Your task to perform on an android device: clear all cookies in the chrome app Image 0: 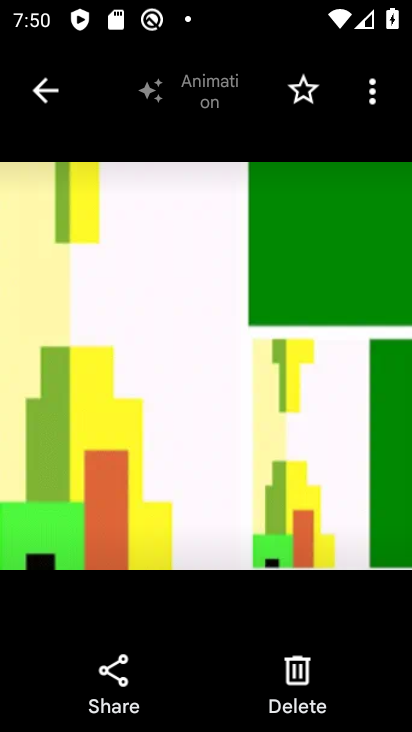
Step 0: press home button
Your task to perform on an android device: clear all cookies in the chrome app Image 1: 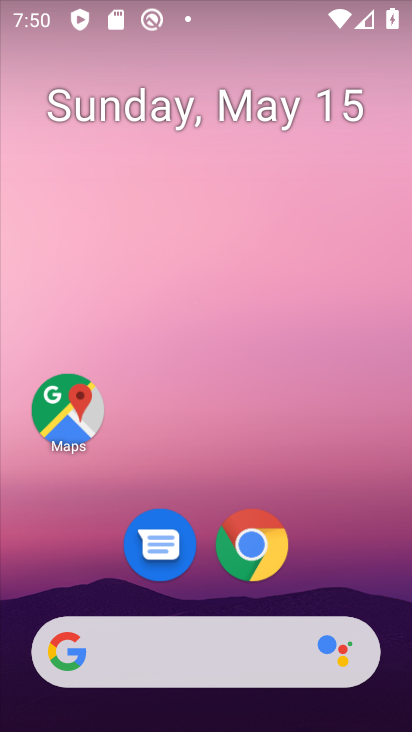
Step 1: drag from (377, 566) to (371, 66)
Your task to perform on an android device: clear all cookies in the chrome app Image 2: 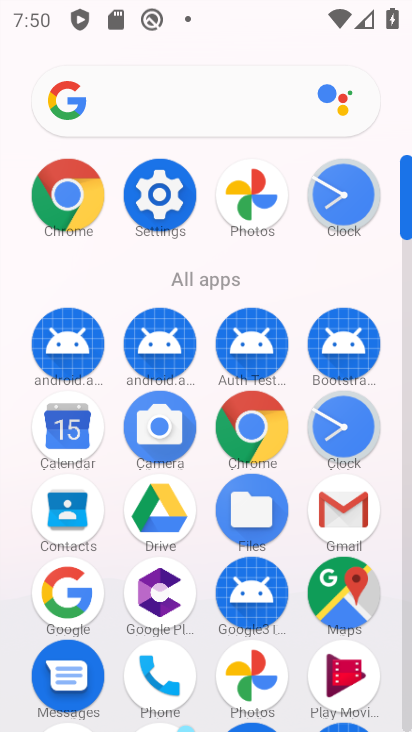
Step 2: click (261, 438)
Your task to perform on an android device: clear all cookies in the chrome app Image 3: 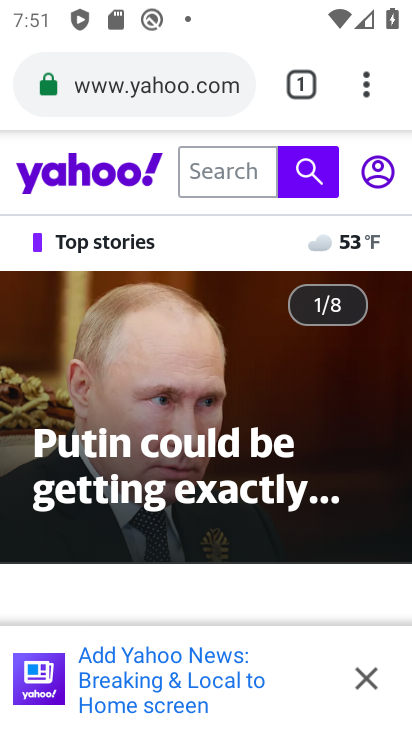
Step 3: click (368, 91)
Your task to perform on an android device: clear all cookies in the chrome app Image 4: 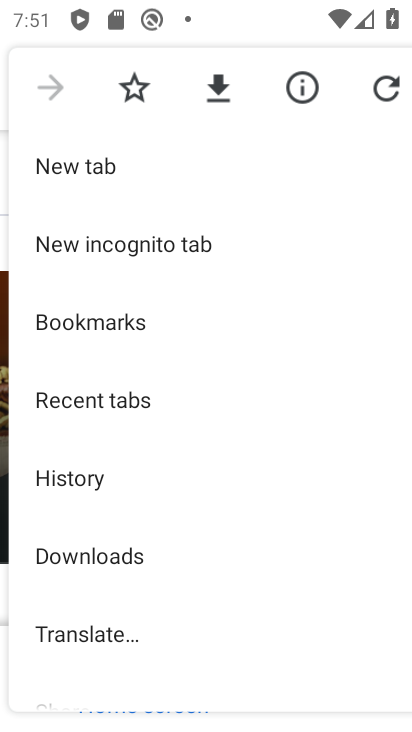
Step 4: drag from (284, 630) to (309, 377)
Your task to perform on an android device: clear all cookies in the chrome app Image 5: 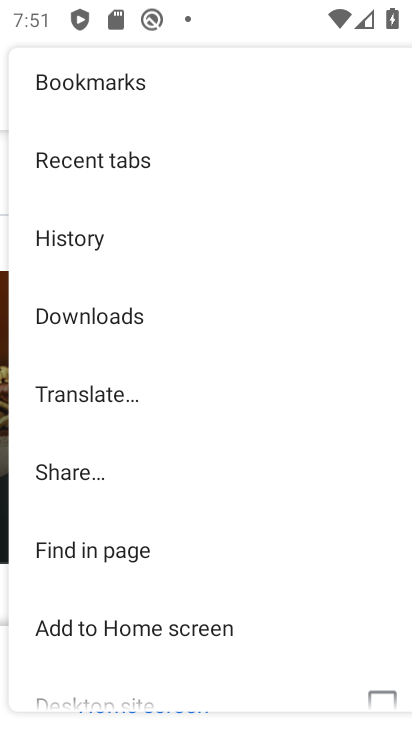
Step 5: drag from (285, 642) to (322, 297)
Your task to perform on an android device: clear all cookies in the chrome app Image 6: 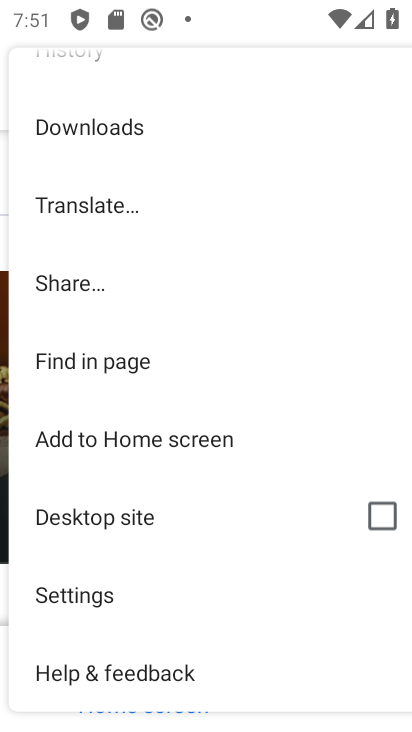
Step 6: click (110, 614)
Your task to perform on an android device: clear all cookies in the chrome app Image 7: 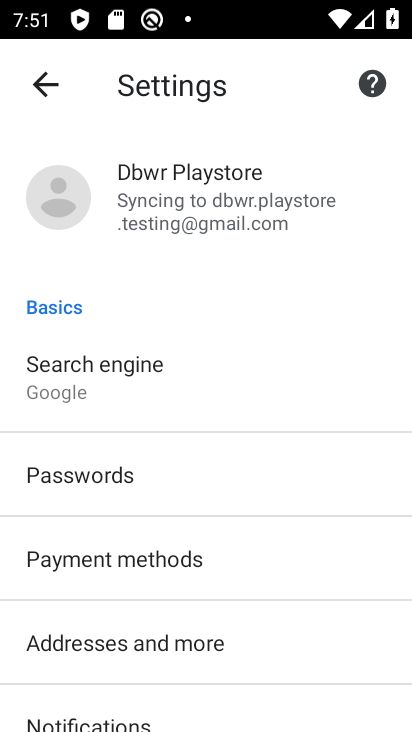
Step 7: drag from (326, 617) to (324, 415)
Your task to perform on an android device: clear all cookies in the chrome app Image 8: 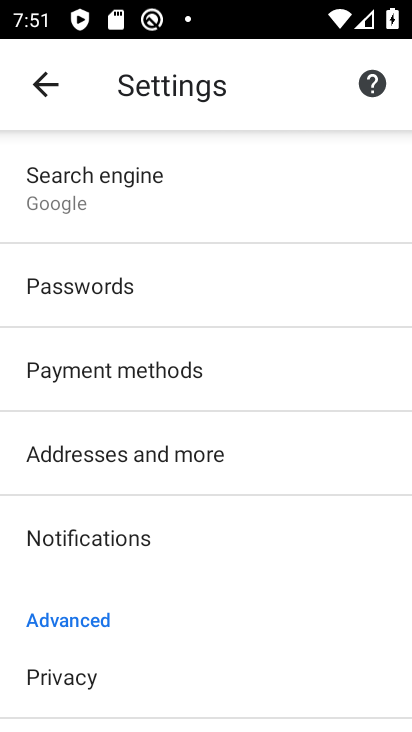
Step 8: drag from (339, 642) to (348, 420)
Your task to perform on an android device: clear all cookies in the chrome app Image 9: 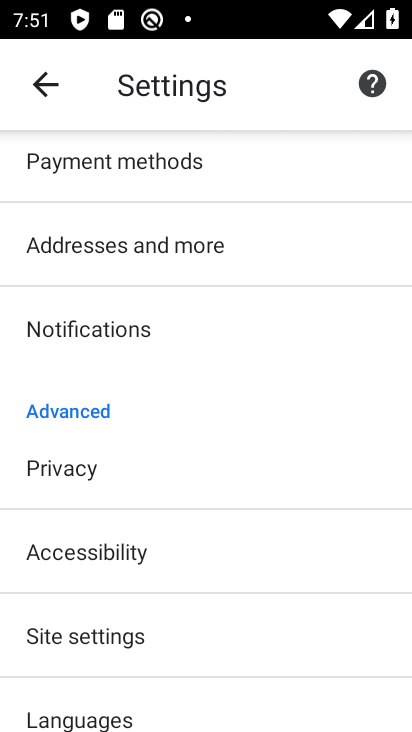
Step 9: drag from (358, 650) to (333, 454)
Your task to perform on an android device: clear all cookies in the chrome app Image 10: 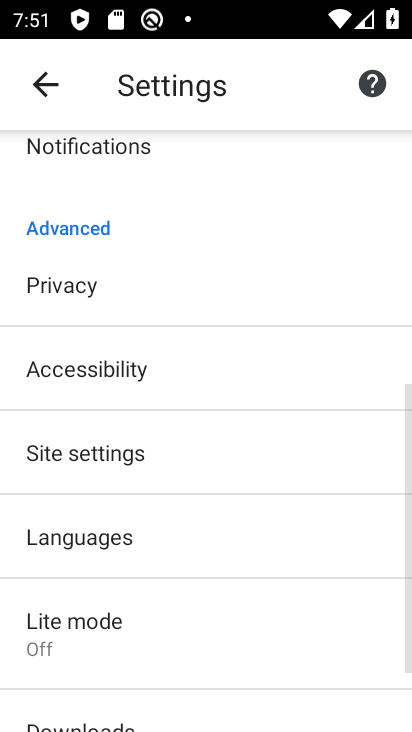
Step 10: drag from (324, 604) to (328, 504)
Your task to perform on an android device: clear all cookies in the chrome app Image 11: 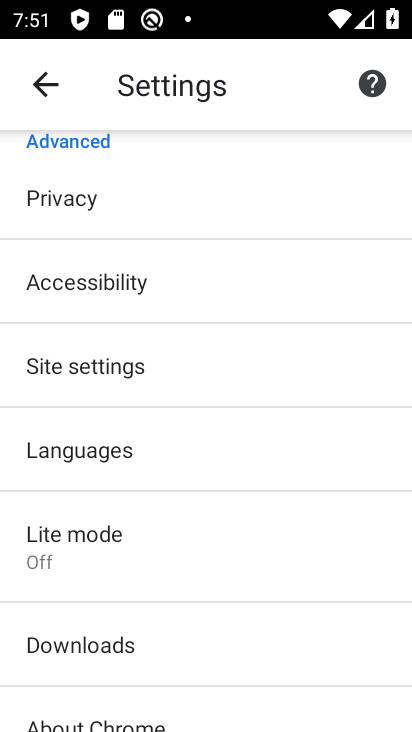
Step 11: drag from (305, 633) to (318, 416)
Your task to perform on an android device: clear all cookies in the chrome app Image 12: 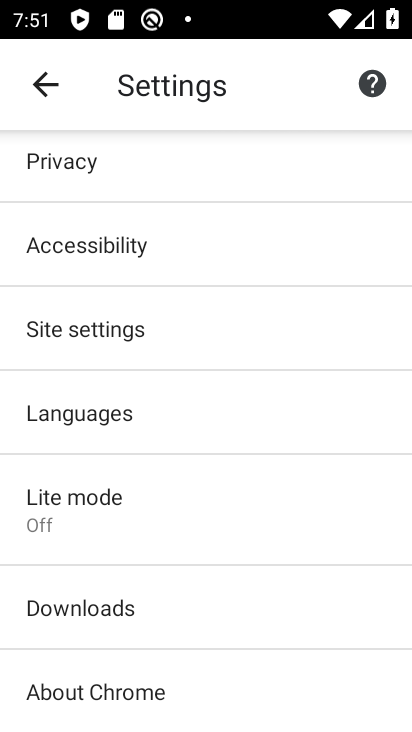
Step 12: click (226, 331)
Your task to perform on an android device: clear all cookies in the chrome app Image 13: 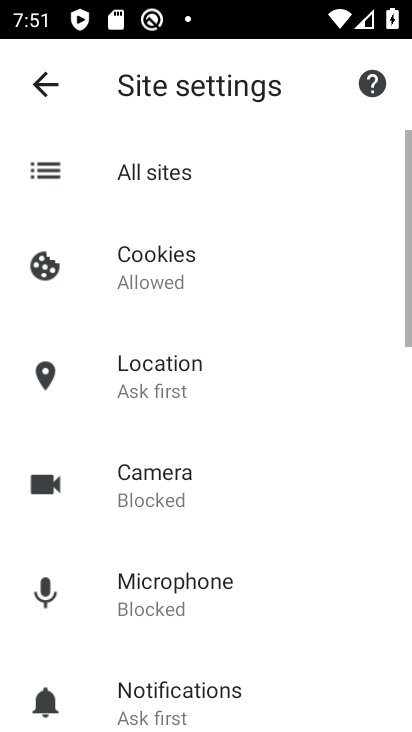
Step 13: drag from (303, 636) to (311, 328)
Your task to perform on an android device: clear all cookies in the chrome app Image 14: 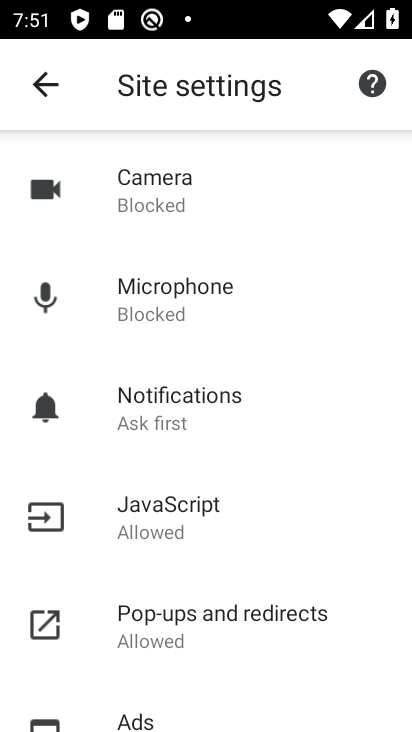
Step 14: drag from (348, 663) to (339, 383)
Your task to perform on an android device: clear all cookies in the chrome app Image 15: 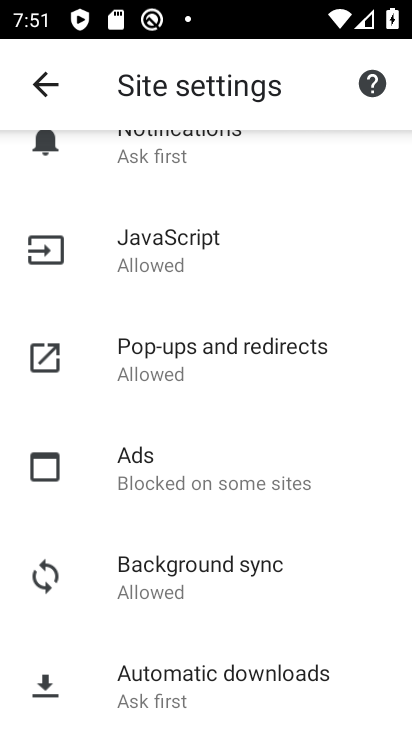
Step 15: drag from (362, 675) to (366, 428)
Your task to perform on an android device: clear all cookies in the chrome app Image 16: 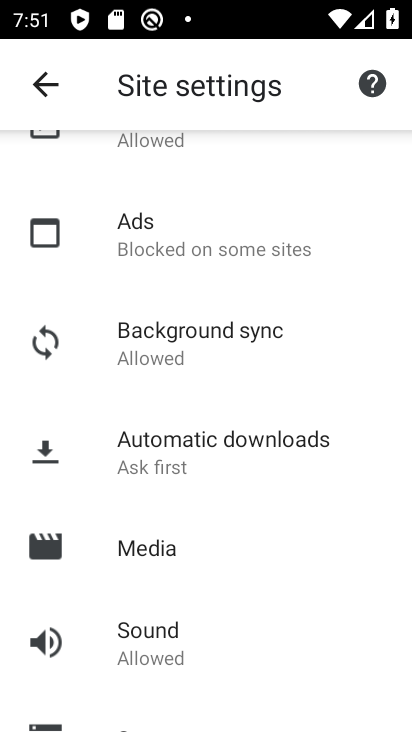
Step 16: drag from (355, 653) to (348, 433)
Your task to perform on an android device: clear all cookies in the chrome app Image 17: 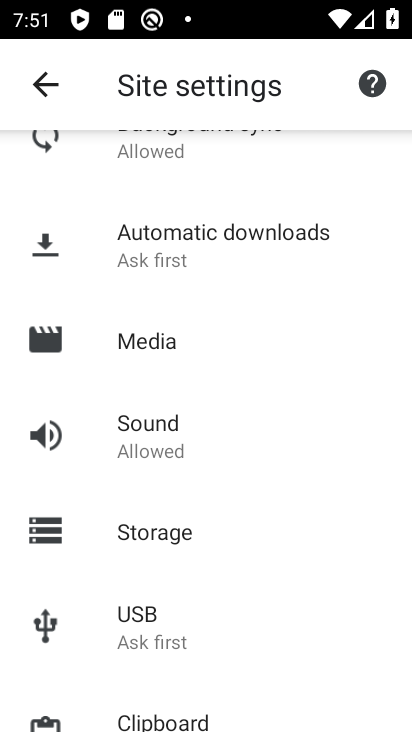
Step 17: drag from (333, 664) to (302, 419)
Your task to perform on an android device: clear all cookies in the chrome app Image 18: 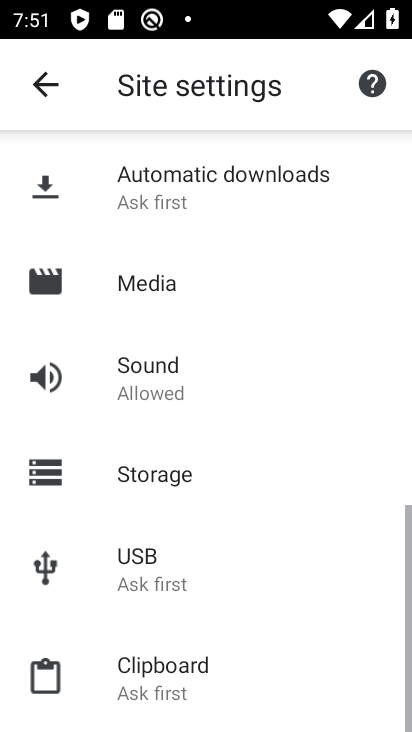
Step 18: drag from (336, 272) to (332, 578)
Your task to perform on an android device: clear all cookies in the chrome app Image 19: 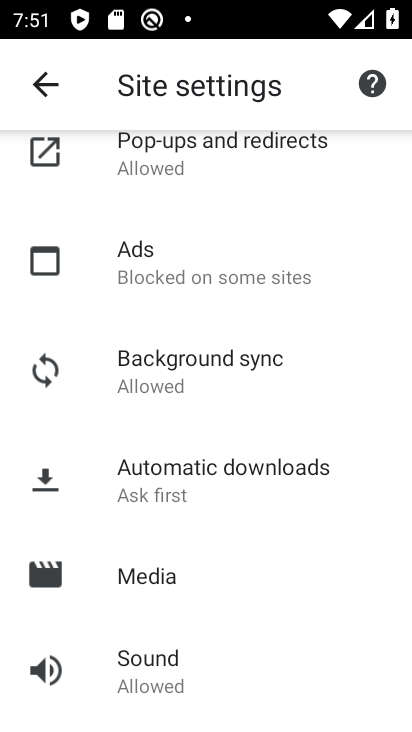
Step 19: drag from (360, 335) to (337, 564)
Your task to perform on an android device: clear all cookies in the chrome app Image 20: 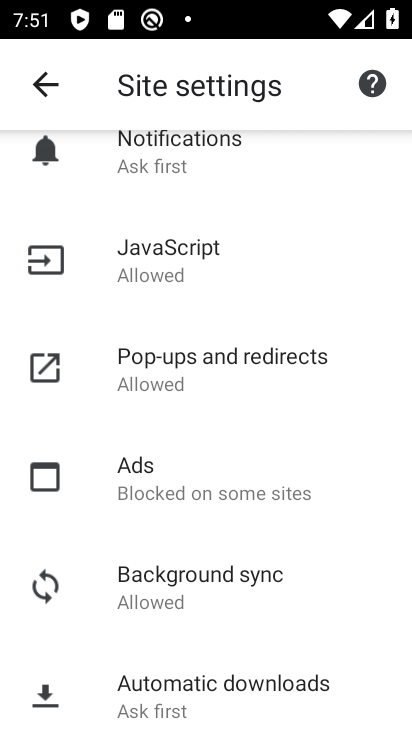
Step 20: drag from (361, 273) to (335, 552)
Your task to perform on an android device: clear all cookies in the chrome app Image 21: 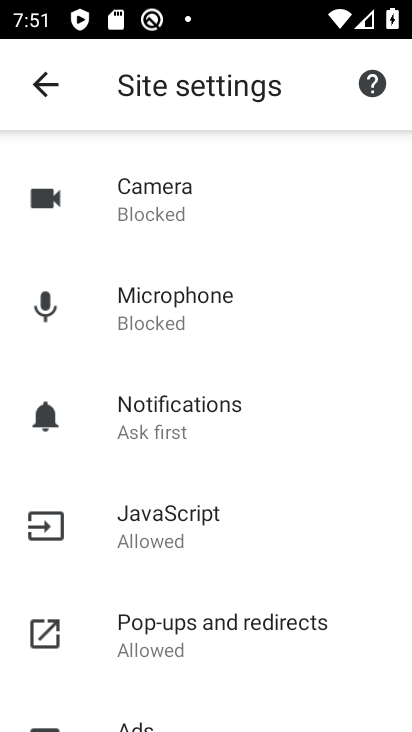
Step 21: drag from (342, 298) to (331, 509)
Your task to perform on an android device: clear all cookies in the chrome app Image 22: 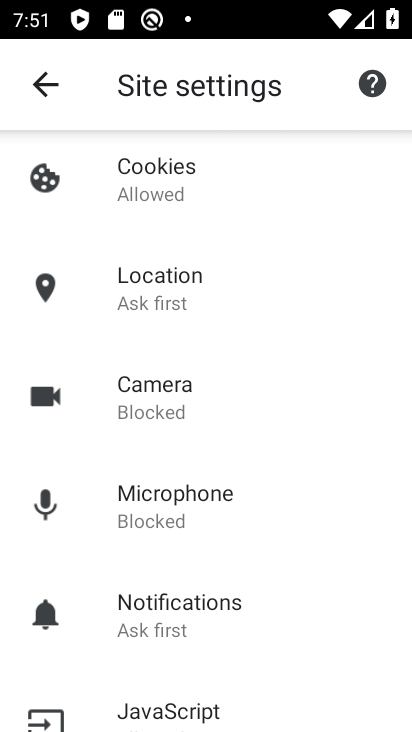
Step 22: drag from (329, 255) to (323, 454)
Your task to perform on an android device: clear all cookies in the chrome app Image 23: 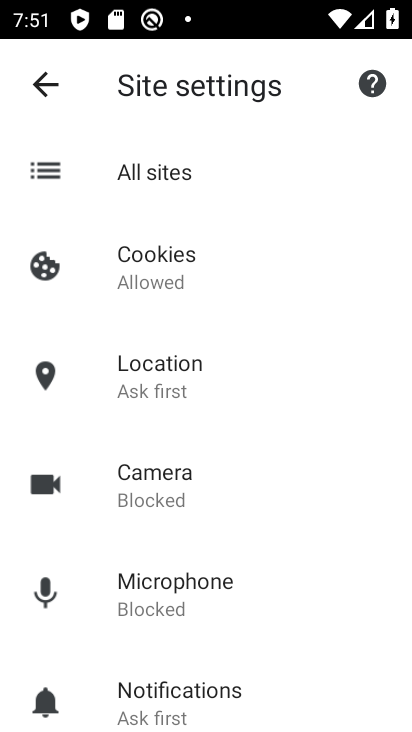
Step 23: click (177, 281)
Your task to perform on an android device: clear all cookies in the chrome app Image 24: 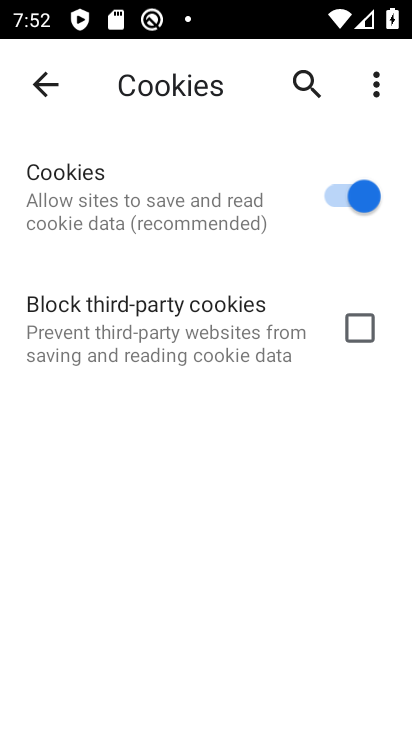
Step 24: click (354, 196)
Your task to perform on an android device: clear all cookies in the chrome app Image 25: 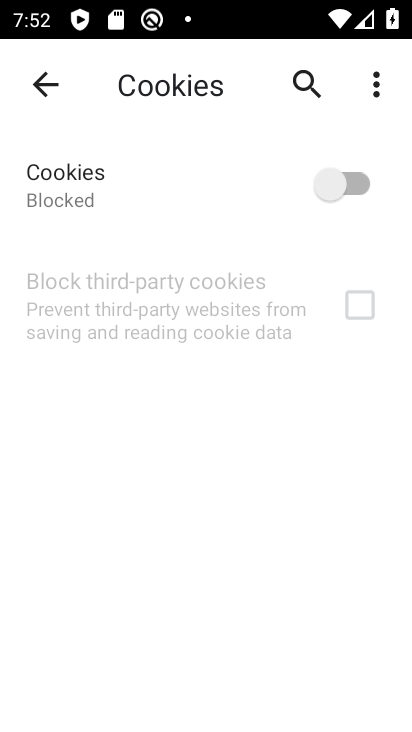
Step 25: task complete